Your task to perform on an android device: Go to wifi settings Image 0: 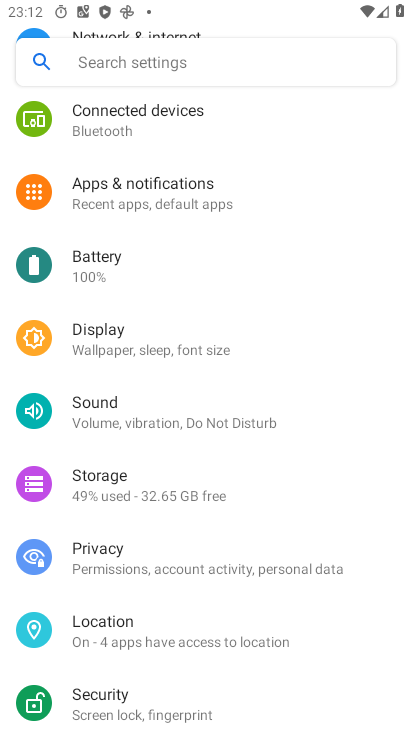
Step 0: press home button
Your task to perform on an android device: Go to wifi settings Image 1: 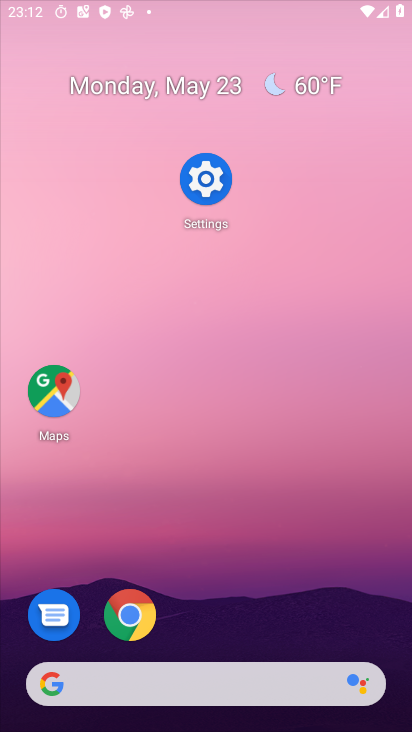
Step 1: drag from (243, 588) to (241, 99)
Your task to perform on an android device: Go to wifi settings Image 2: 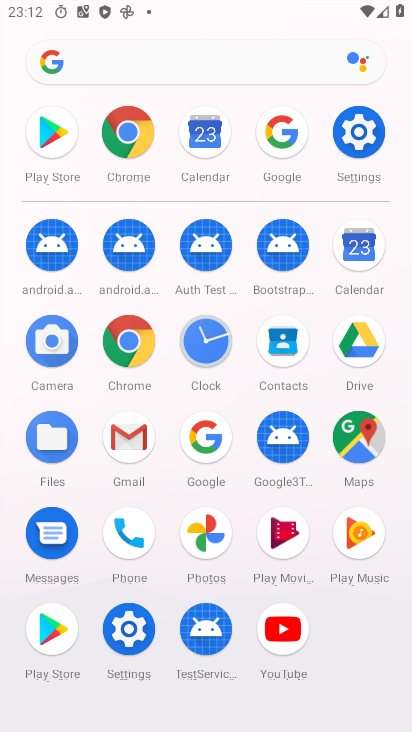
Step 2: click (358, 138)
Your task to perform on an android device: Go to wifi settings Image 3: 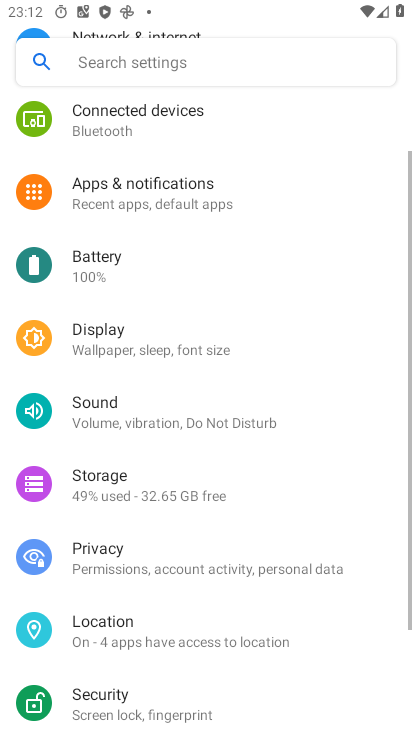
Step 3: drag from (148, 123) to (187, 423)
Your task to perform on an android device: Go to wifi settings Image 4: 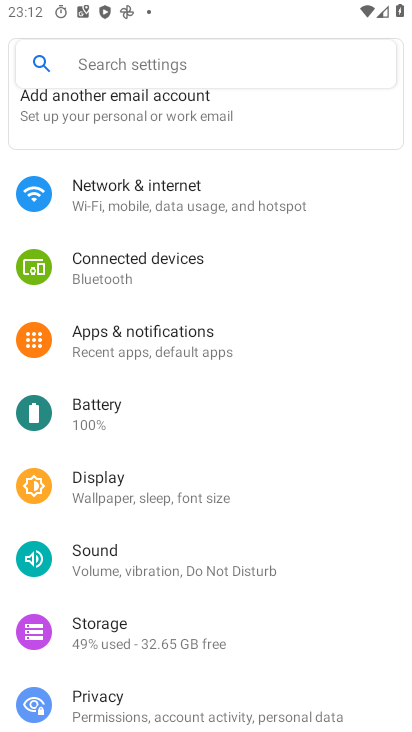
Step 4: click (142, 205)
Your task to perform on an android device: Go to wifi settings Image 5: 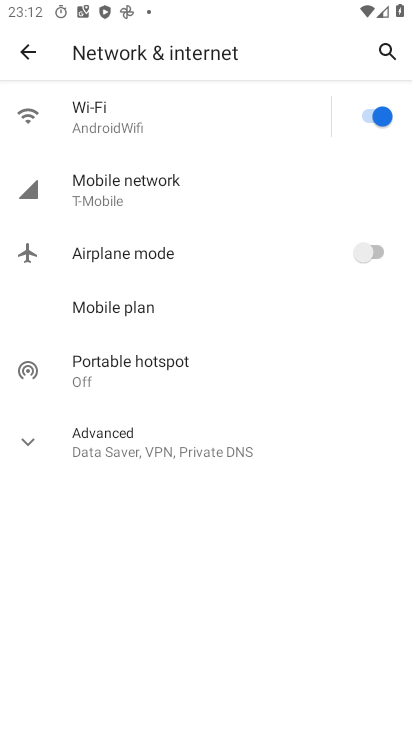
Step 5: click (160, 119)
Your task to perform on an android device: Go to wifi settings Image 6: 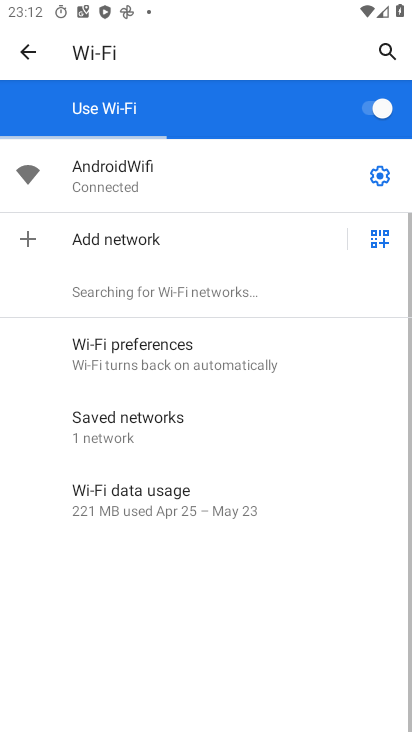
Step 6: click (360, 164)
Your task to perform on an android device: Go to wifi settings Image 7: 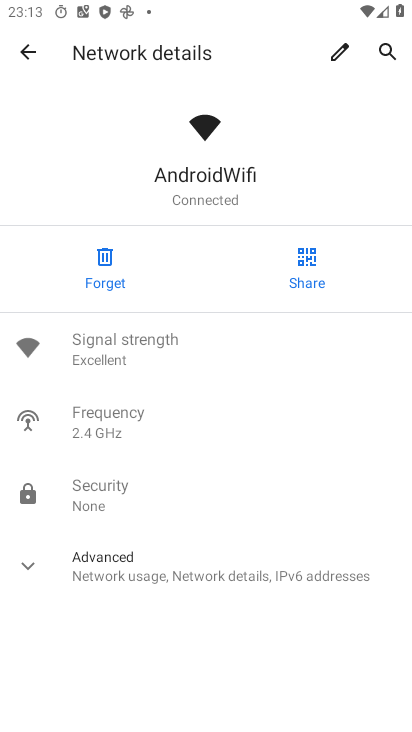
Step 7: task complete